Your task to perform on an android device: What's the weather going to be tomorrow? Image 0: 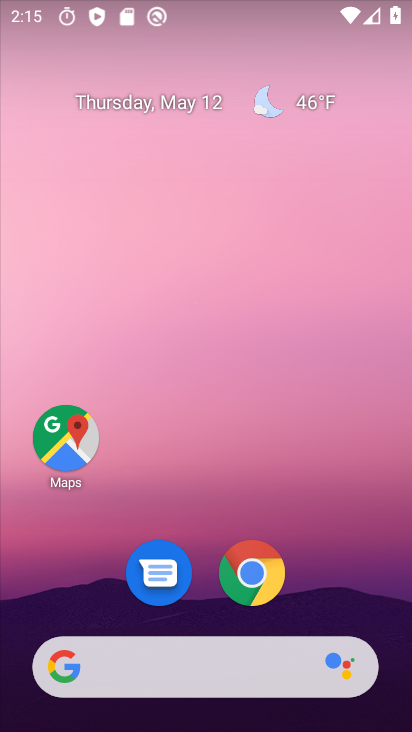
Step 0: click (323, 110)
Your task to perform on an android device: What's the weather going to be tomorrow? Image 1: 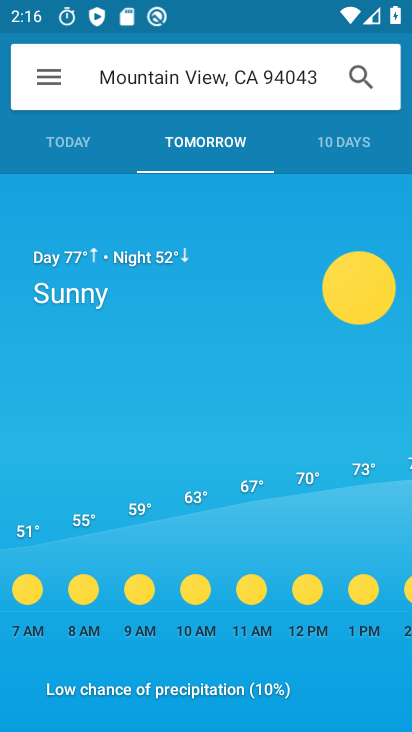
Step 1: task complete